Your task to perform on an android device: Open Yahoo.com Image 0: 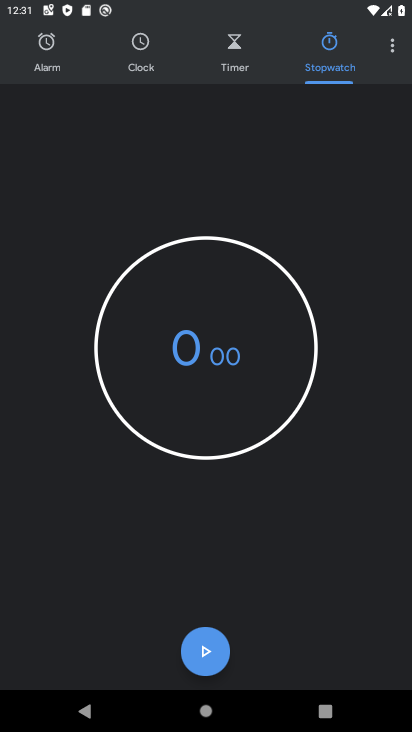
Step 0: press home button
Your task to perform on an android device: Open Yahoo.com Image 1: 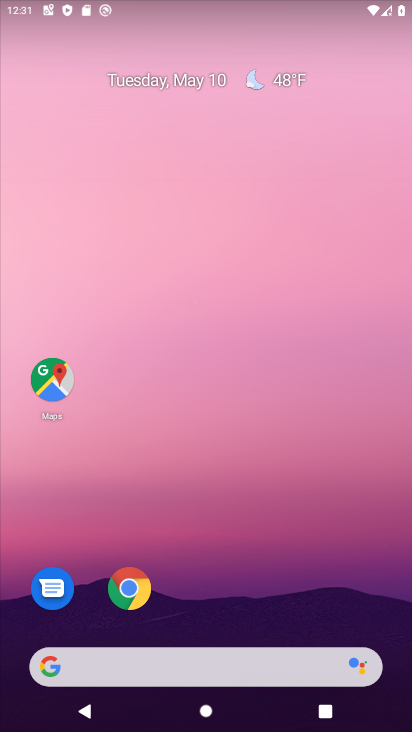
Step 1: click (122, 606)
Your task to perform on an android device: Open Yahoo.com Image 2: 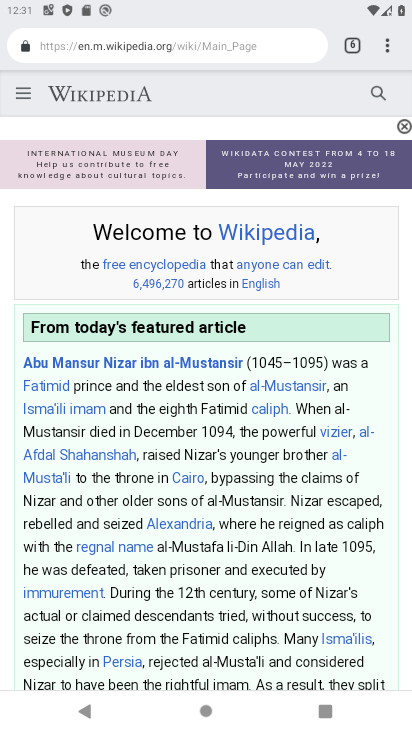
Step 2: click (382, 48)
Your task to perform on an android device: Open Yahoo.com Image 3: 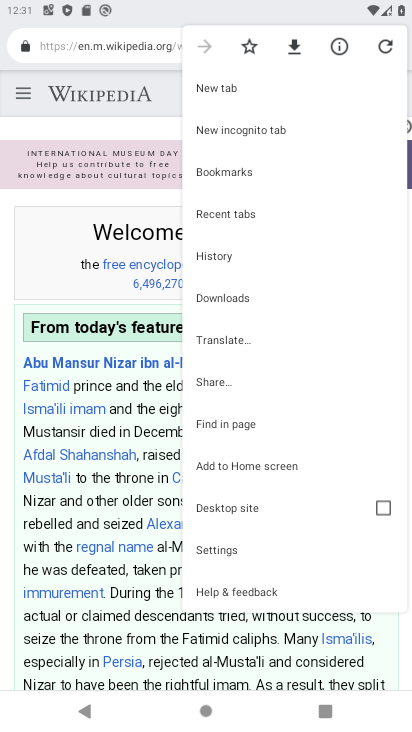
Step 3: click (238, 82)
Your task to perform on an android device: Open Yahoo.com Image 4: 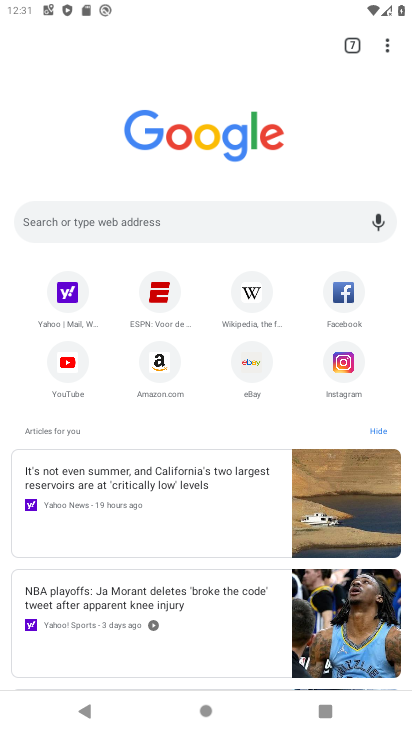
Step 4: click (66, 287)
Your task to perform on an android device: Open Yahoo.com Image 5: 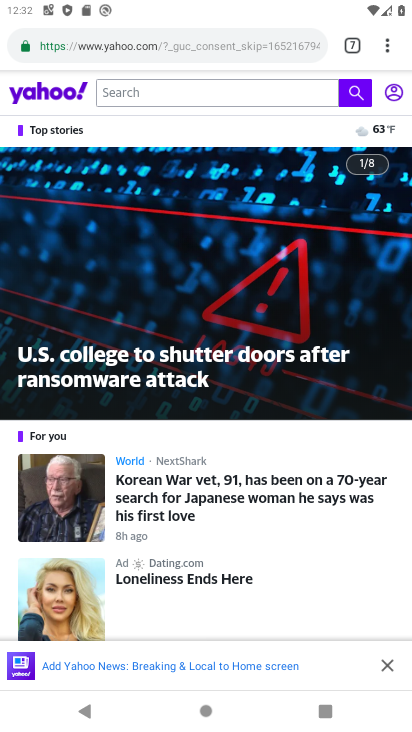
Step 5: task complete